Your task to perform on an android device: Show the shopping cart on newegg.com. Search for "acer predator" on newegg.com, select the first entry, add it to the cart, then select checkout. Image 0: 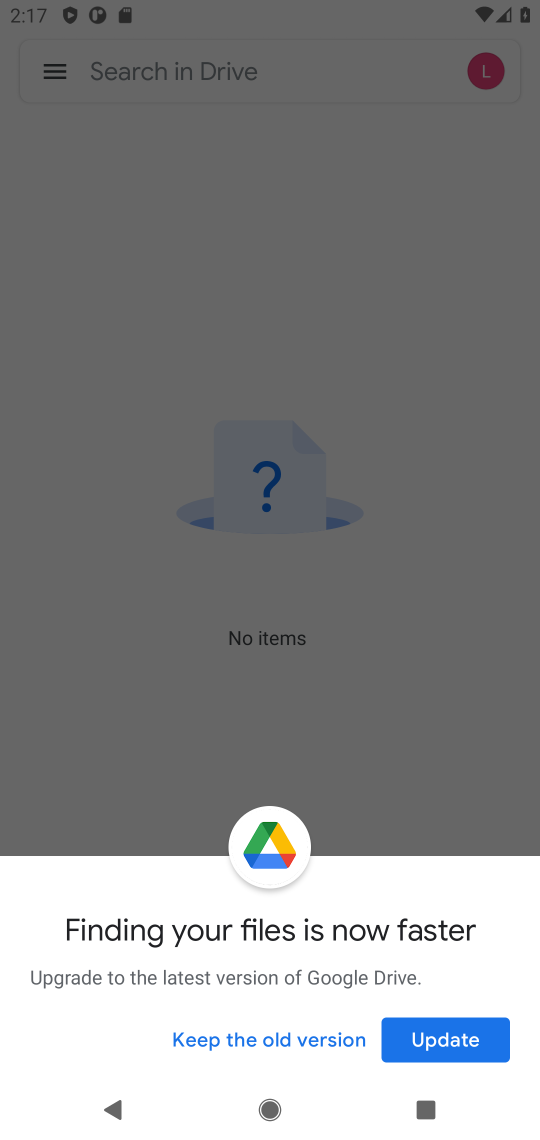
Step 0: press home button
Your task to perform on an android device: Show the shopping cart on newegg.com. Search for "acer predator" on newegg.com, select the first entry, add it to the cart, then select checkout. Image 1: 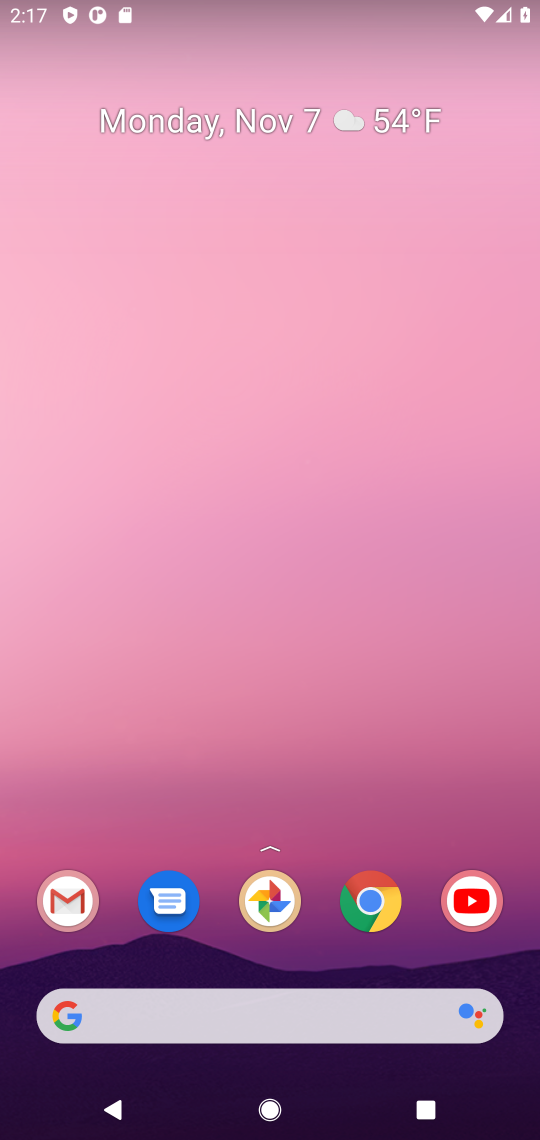
Step 1: click (373, 911)
Your task to perform on an android device: Show the shopping cart on newegg.com. Search for "acer predator" on newegg.com, select the first entry, add it to the cart, then select checkout. Image 2: 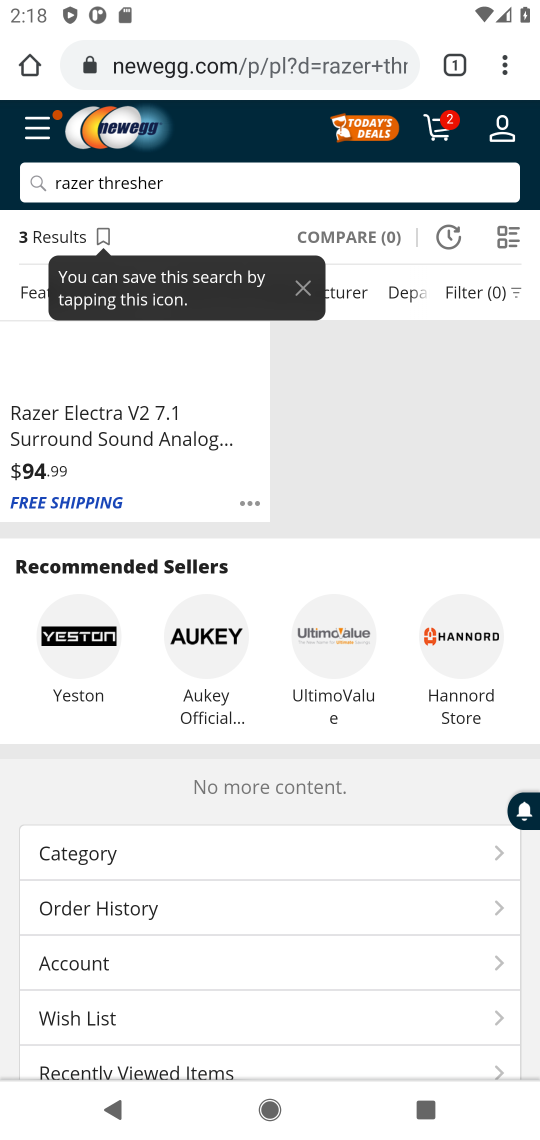
Step 2: click (452, 130)
Your task to perform on an android device: Show the shopping cart on newegg.com. Search for "acer predator" on newegg.com, select the first entry, add it to the cart, then select checkout. Image 3: 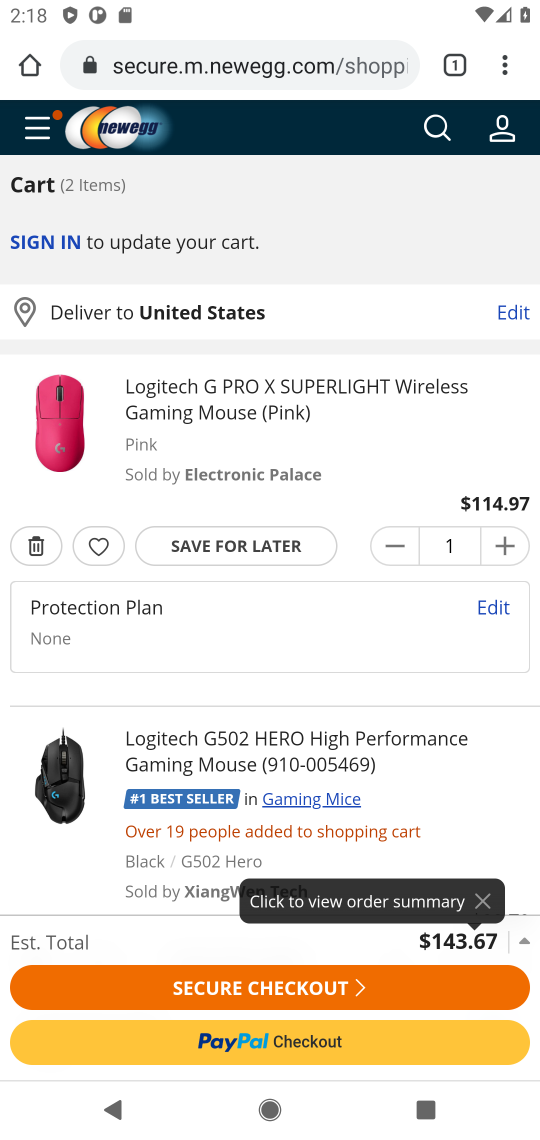
Step 3: click (440, 132)
Your task to perform on an android device: Show the shopping cart on newegg.com. Search for "acer predator" on newegg.com, select the first entry, add it to the cart, then select checkout. Image 4: 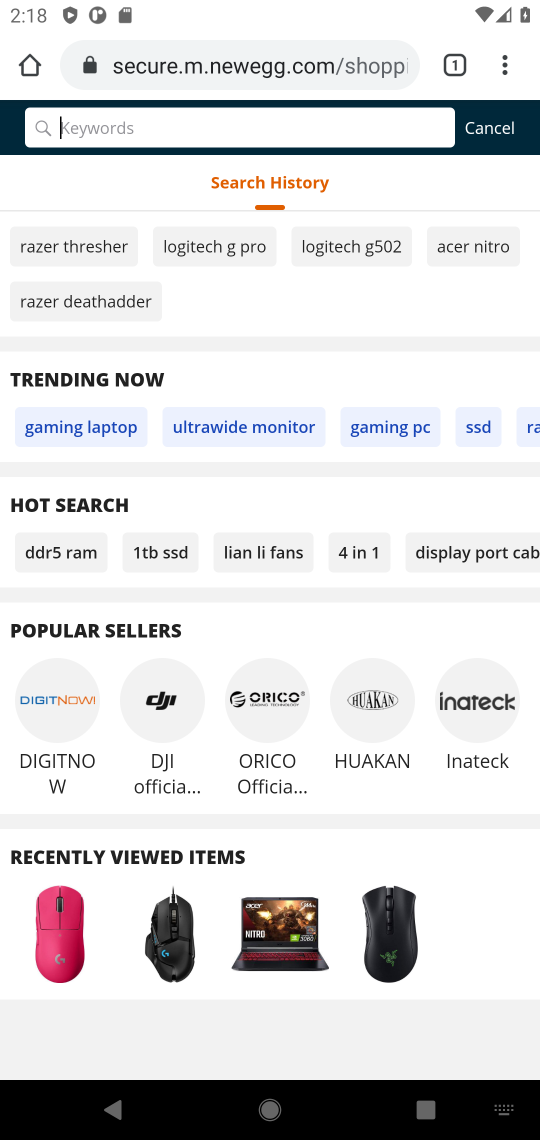
Step 4: type "acer predator"
Your task to perform on an android device: Show the shopping cart on newegg.com. Search for "acer predator" on newegg.com, select the first entry, add it to the cart, then select checkout. Image 5: 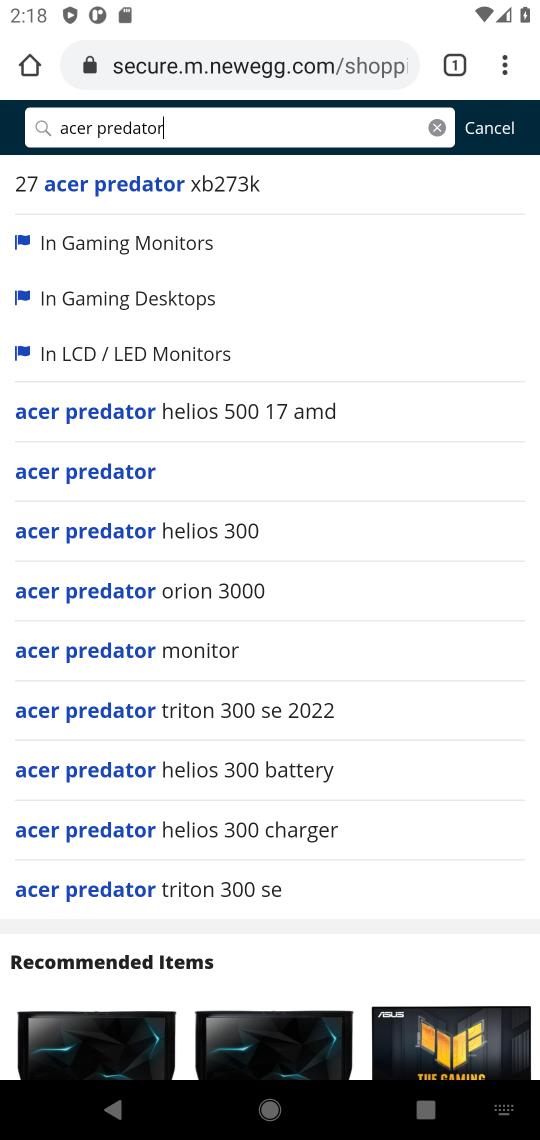
Step 5: click (111, 466)
Your task to perform on an android device: Show the shopping cart on newegg.com. Search for "acer predator" on newegg.com, select the first entry, add it to the cart, then select checkout. Image 6: 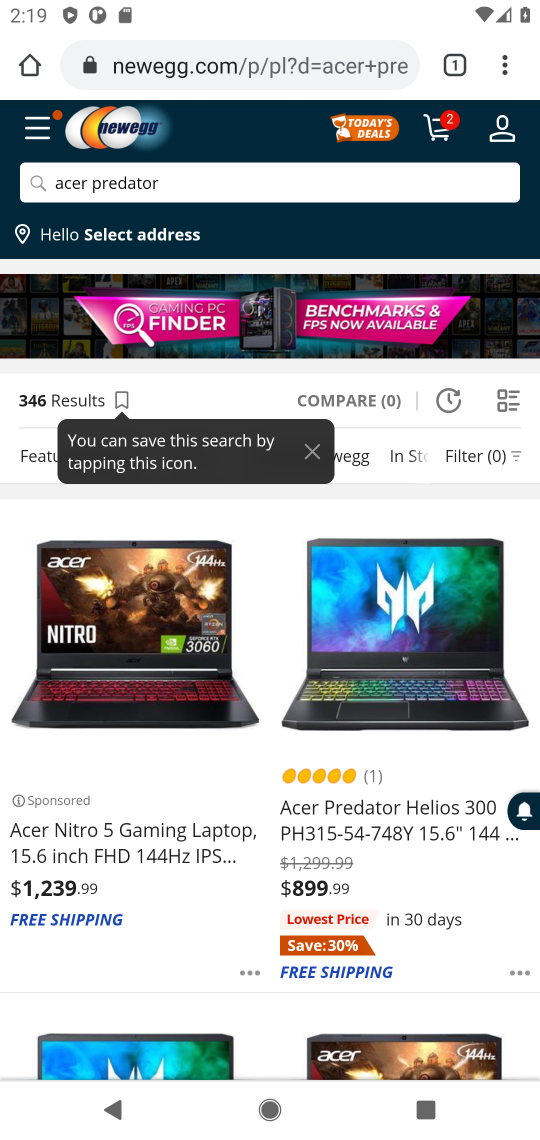
Step 6: task complete